Your task to perform on an android device: Show me popular videos on Youtube Image 0: 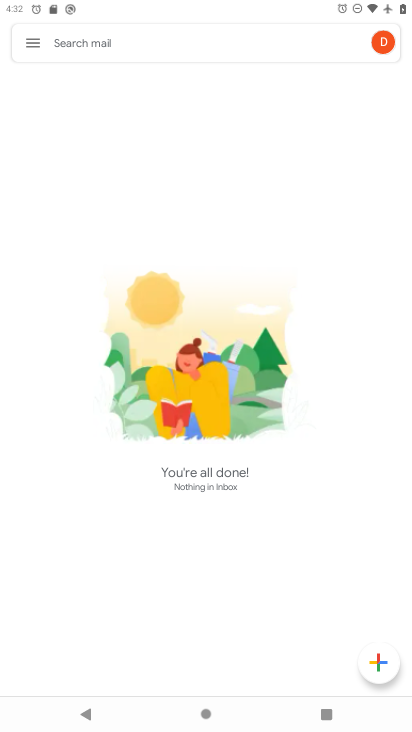
Step 0: press home button
Your task to perform on an android device: Show me popular videos on Youtube Image 1: 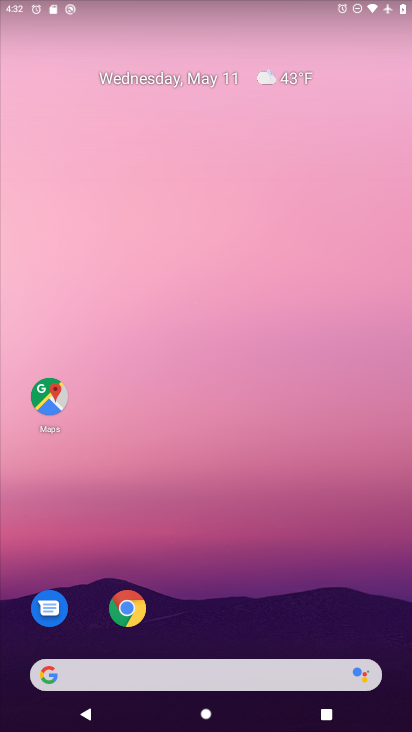
Step 1: drag from (226, 725) to (210, 385)
Your task to perform on an android device: Show me popular videos on Youtube Image 2: 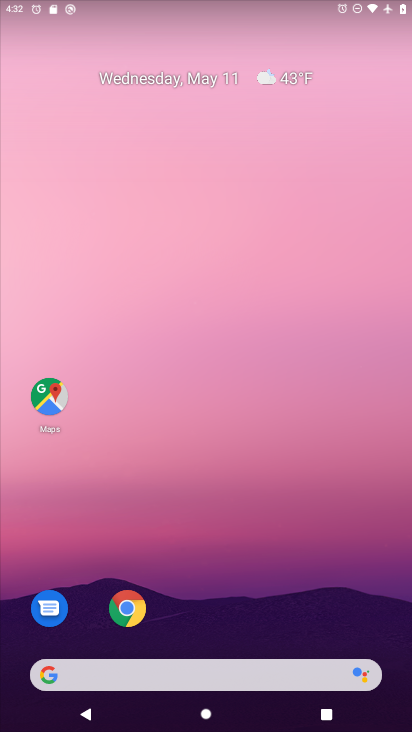
Step 2: drag from (225, 722) to (218, 338)
Your task to perform on an android device: Show me popular videos on Youtube Image 3: 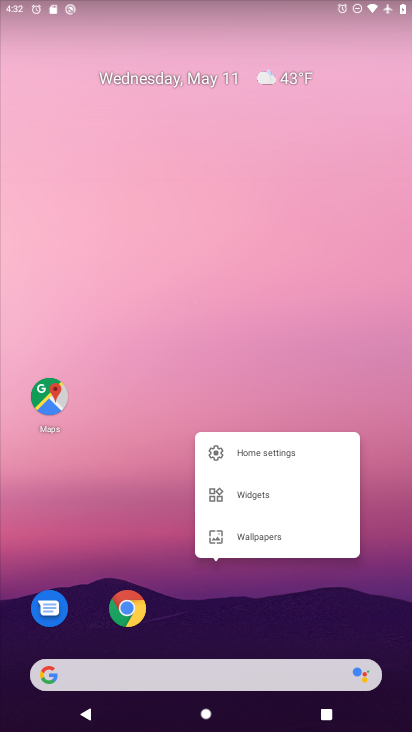
Step 3: click (236, 356)
Your task to perform on an android device: Show me popular videos on Youtube Image 4: 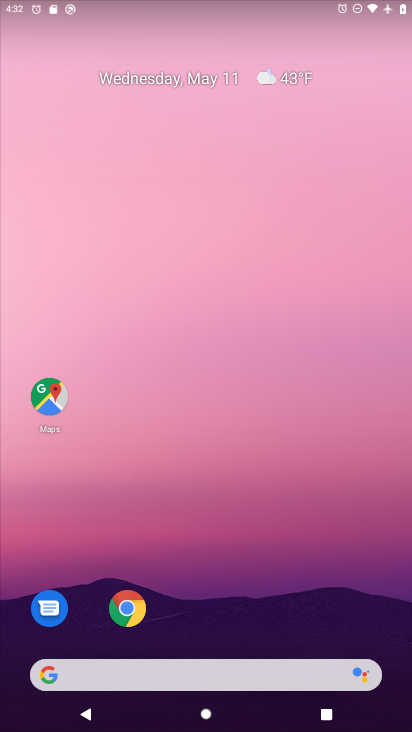
Step 4: drag from (225, 715) to (219, 0)
Your task to perform on an android device: Show me popular videos on Youtube Image 5: 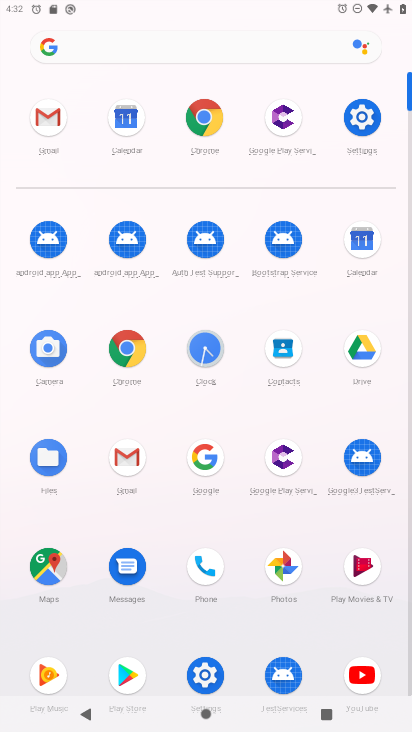
Step 5: click (362, 675)
Your task to perform on an android device: Show me popular videos on Youtube Image 6: 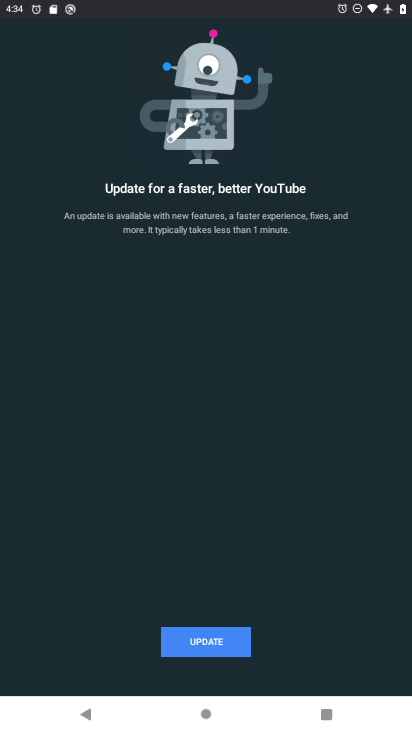
Step 6: task complete